Your task to perform on an android device: turn on notifications settings in the gmail app Image 0: 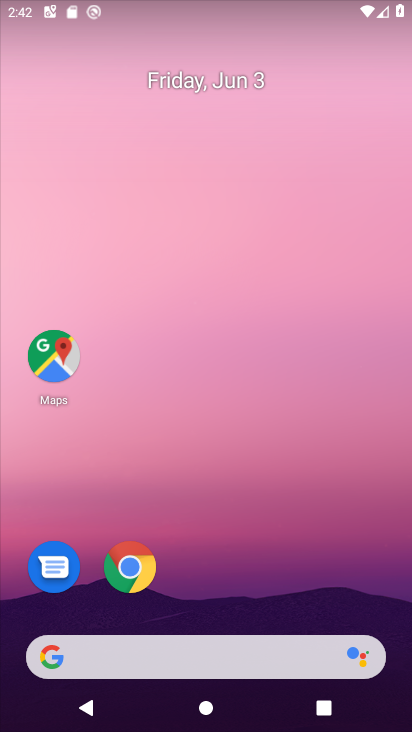
Step 0: drag from (228, 618) to (239, 234)
Your task to perform on an android device: turn on notifications settings in the gmail app Image 1: 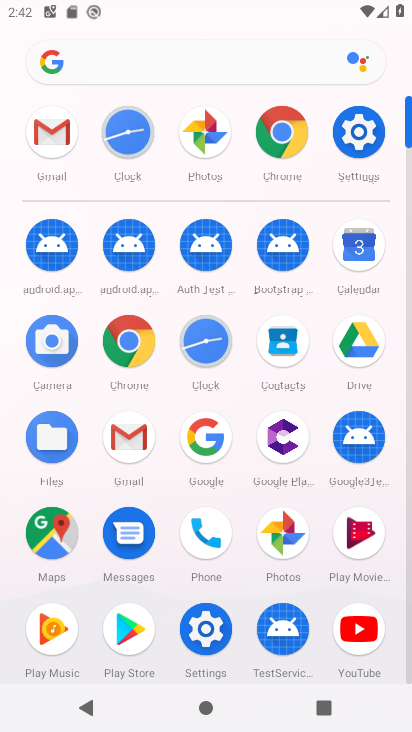
Step 1: click (126, 435)
Your task to perform on an android device: turn on notifications settings in the gmail app Image 2: 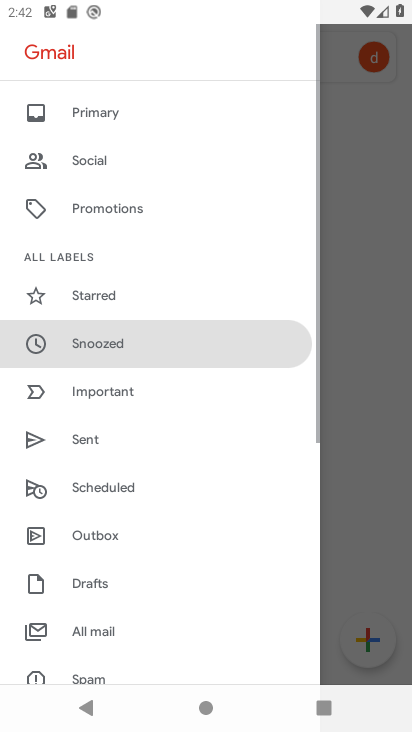
Step 2: drag from (163, 604) to (191, 151)
Your task to perform on an android device: turn on notifications settings in the gmail app Image 3: 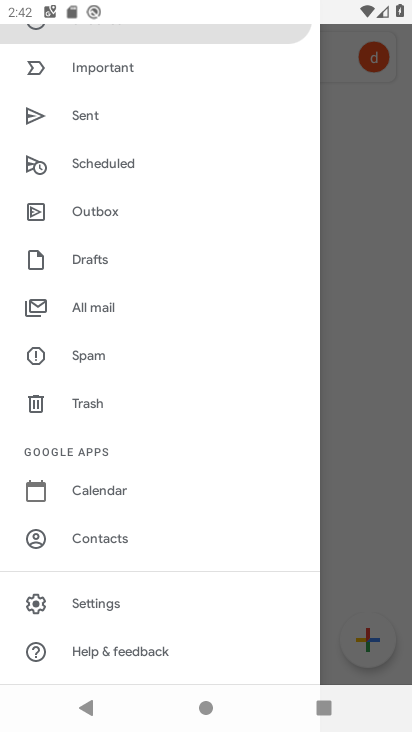
Step 3: drag from (136, 604) to (207, 300)
Your task to perform on an android device: turn on notifications settings in the gmail app Image 4: 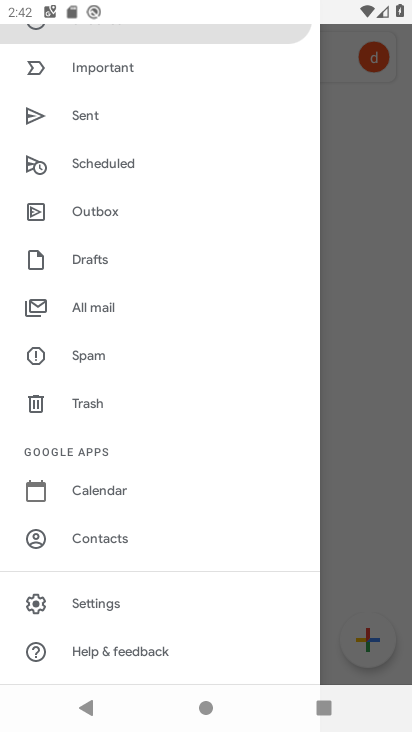
Step 4: click (147, 588)
Your task to perform on an android device: turn on notifications settings in the gmail app Image 5: 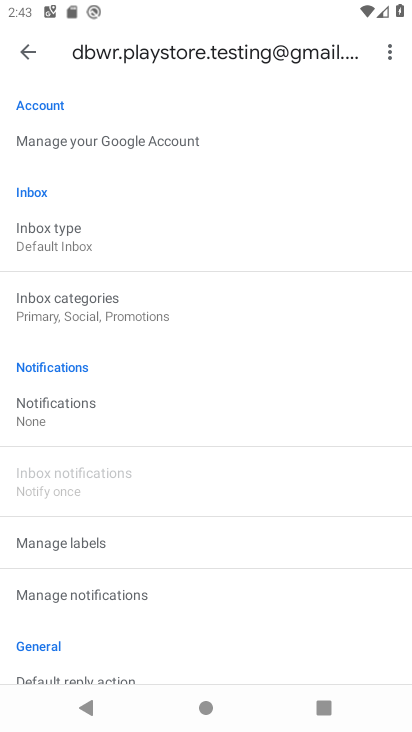
Step 5: click (75, 412)
Your task to perform on an android device: turn on notifications settings in the gmail app Image 6: 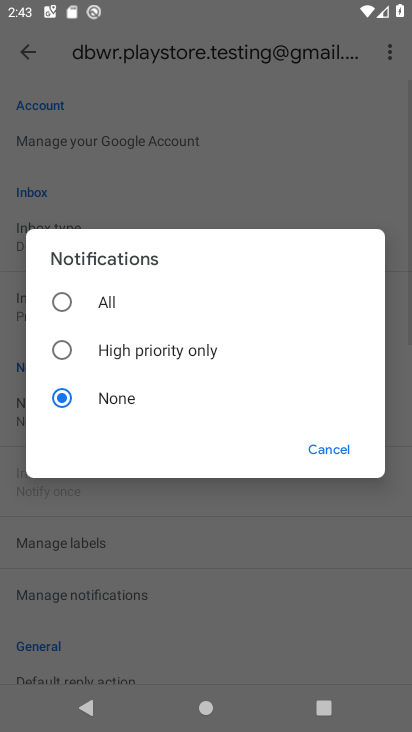
Step 6: click (112, 295)
Your task to perform on an android device: turn on notifications settings in the gmail app Image 7: 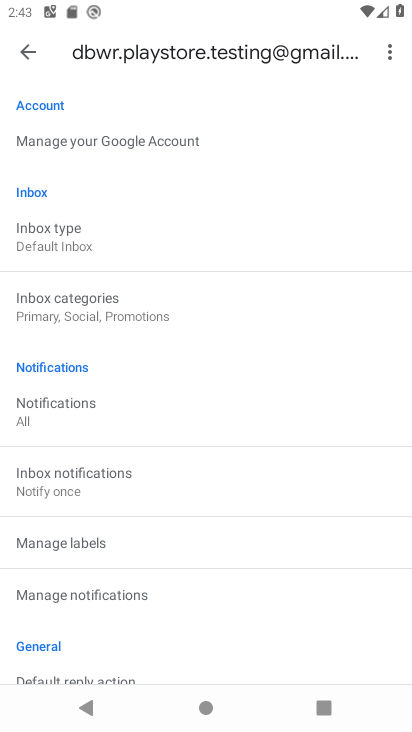
Step 7: task complete